Your task to perform on an android device: find photos in the google photos app Image 0: 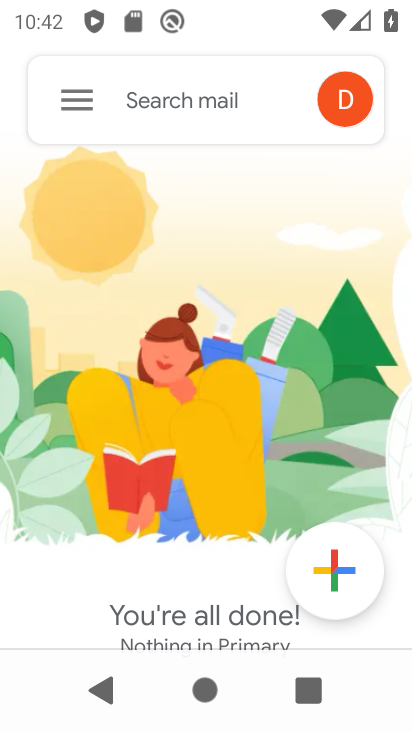
Step 0: press home button
Your task to perform on an android device: find photos in the google photos app Image 1: 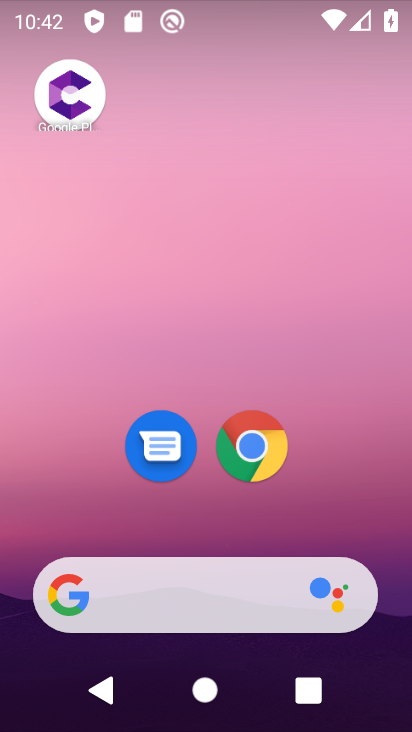
Step 1: drag from (381, 559) to (400, 176)
Your task to perform on an android device: find photos in the google photos app Image 2: 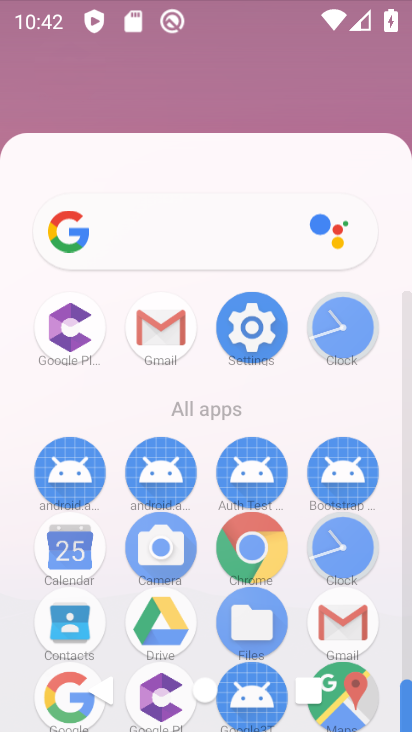
Step 2: click (400, 171)
Your task to perform on an android device: find photos in the google photos app Image 3: 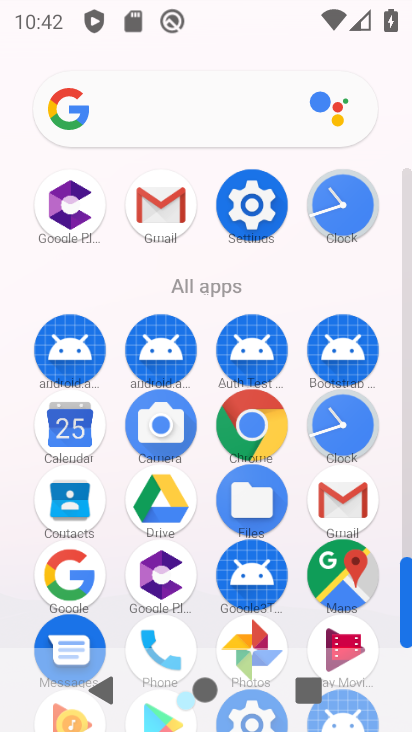
Step 3: drag from (288, 474) to (300, 214)
Your task to perform on an android device: find photos in the google photos app Image 4: 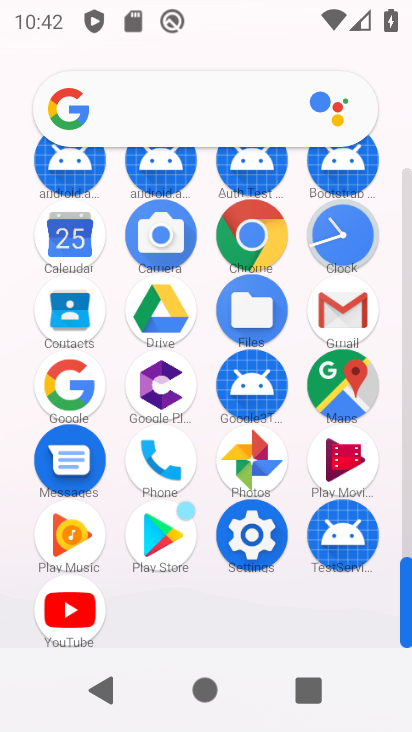
Step 4: click (261, 477)
Your task to perform on an android device: find photos in the google photos app Image 5: 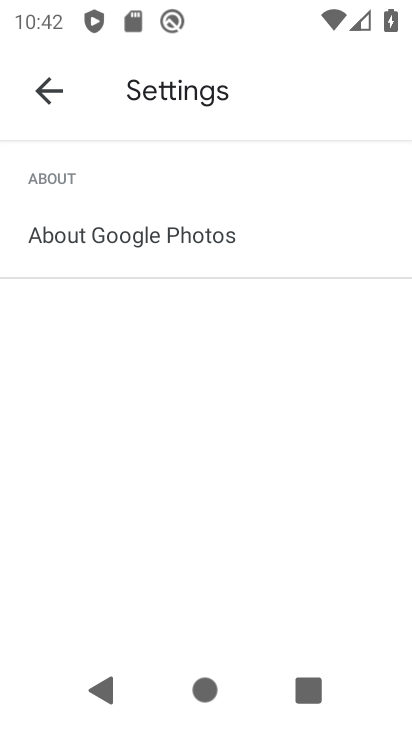
Step 5: click (50, 101)
Your task to perform on an android device: find photos in the google photos app Image 6: 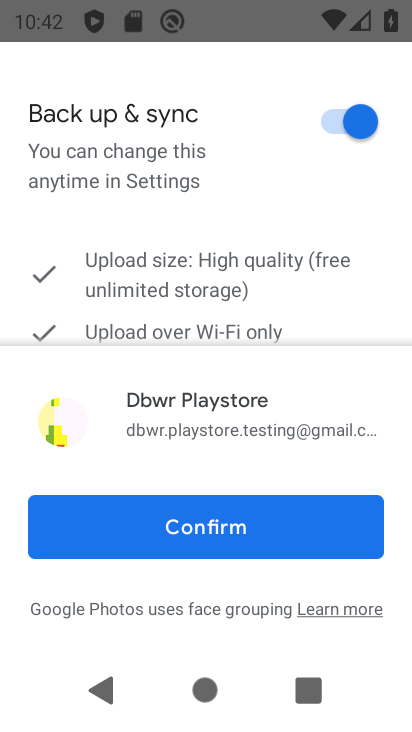
Step 6: click (239, 529)
Your task to perform on an android device: find photos in the google photos app Image 7: 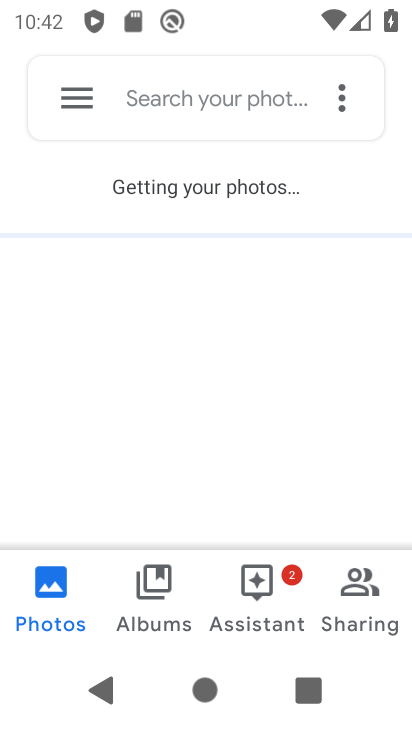
Step 7: task complete